Your task to perform on an android device: find snoozed emails in the gmail app Image 0: 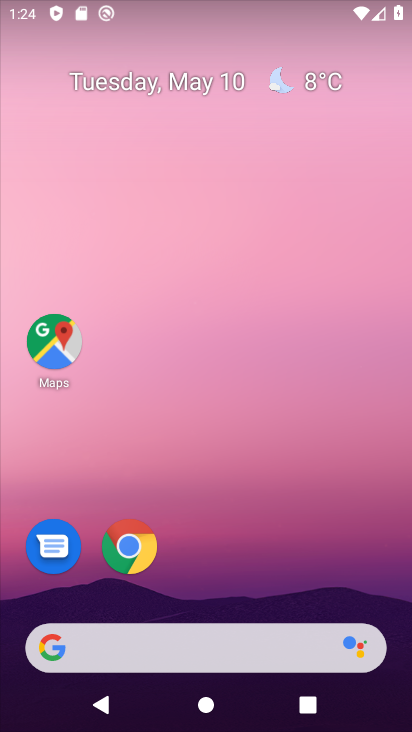
Step 0: drag from (379, 626) to (286, 122)
Your task to perform on an android device: find snoozed emails in the gmail app Image 1: 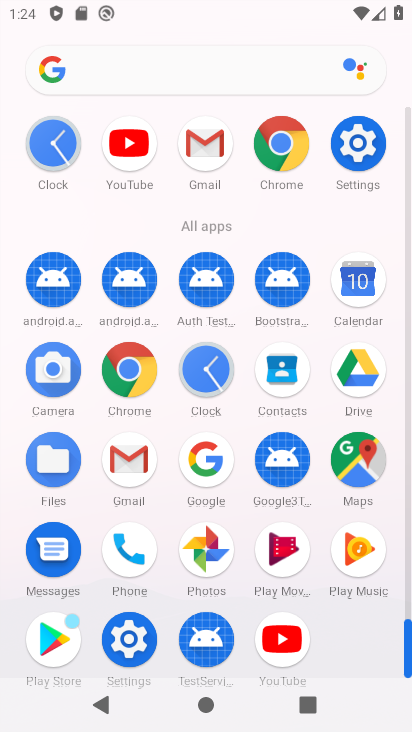
Step 1: click (129, 453)
Your task to perform on an android device: find snoozed emails in the gmail app Image 2: 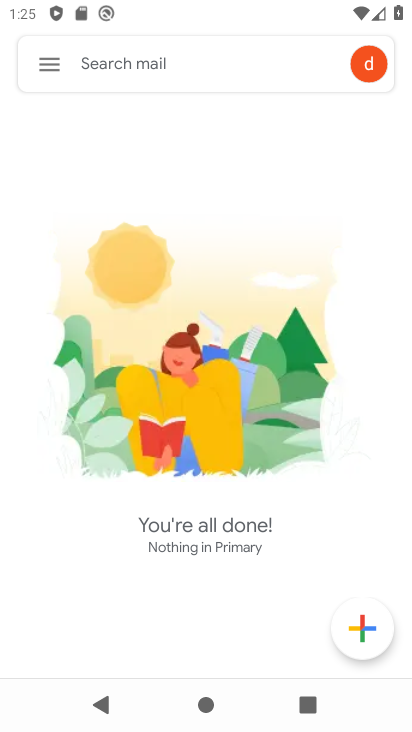
Step 2: click (46, 67)
Your task to perform on an android device: find snoozed emails in the gmail app Image 3: 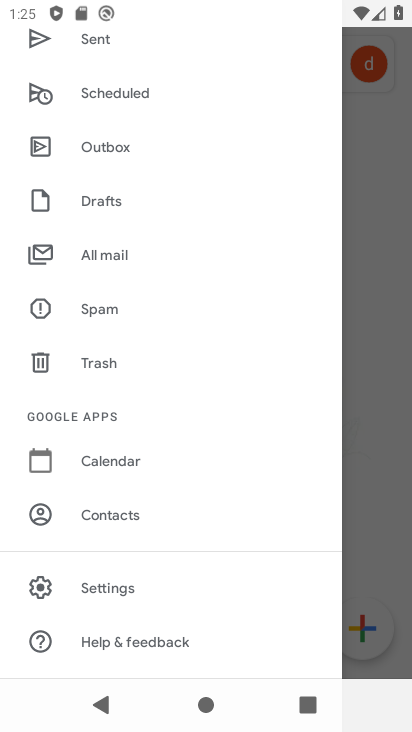
Step 3: drag from (205, 142) to (177, 435)
Your task to perform on an android device: find snoozed emails in the gmail app Image 4: 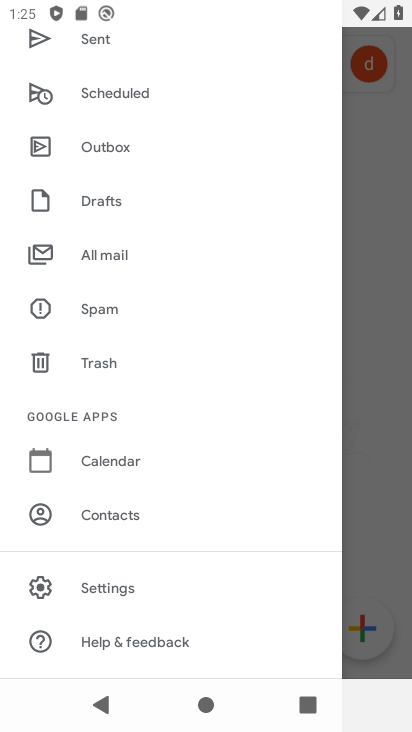
Step 4: drag from (178, 121) to (127, 484)
Your task to perform on an android device: find snoozed emails in the gmail app Image 5: 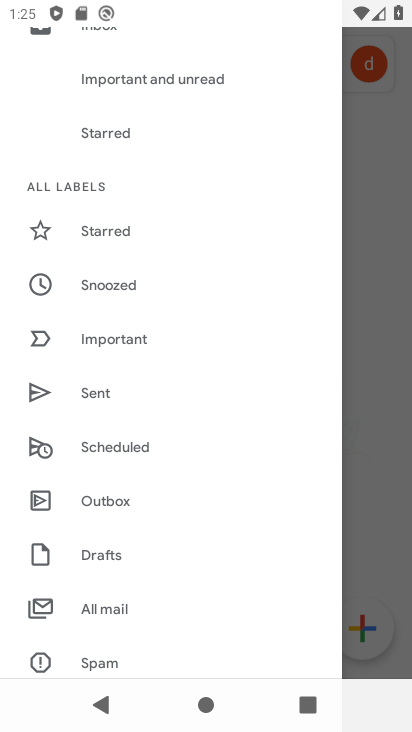
Step 5: click (104, 290)
Your task to perform on an android device: find snoozed emails in the gmail app Image 6: 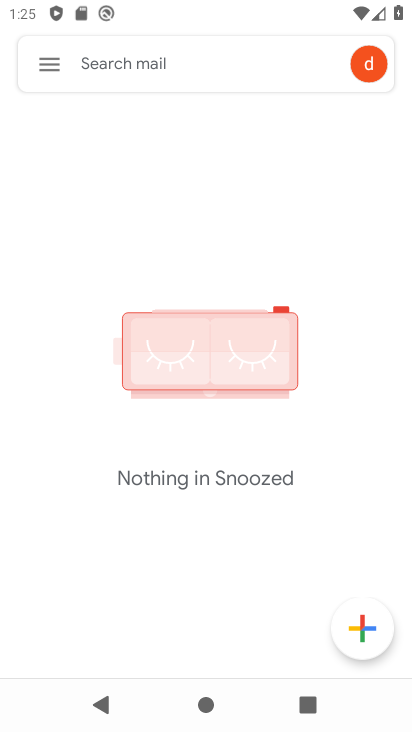
Step 6: task complete